Your task to perform on an android device: change the upload size in google photos Image 0: 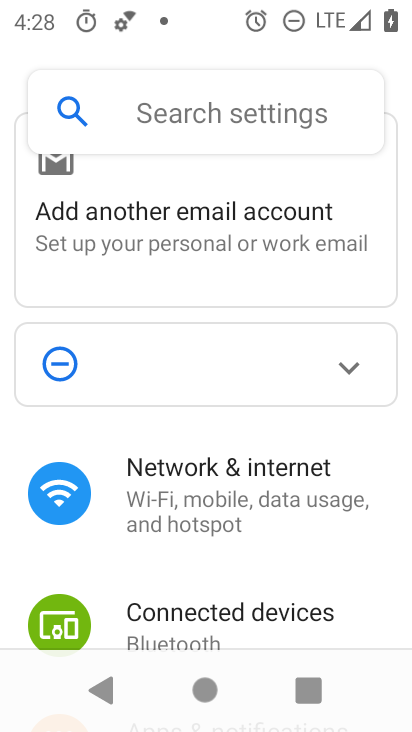
Step 0: press home button
Your task to perform on an android device: change the upload size in google photos Image 1: 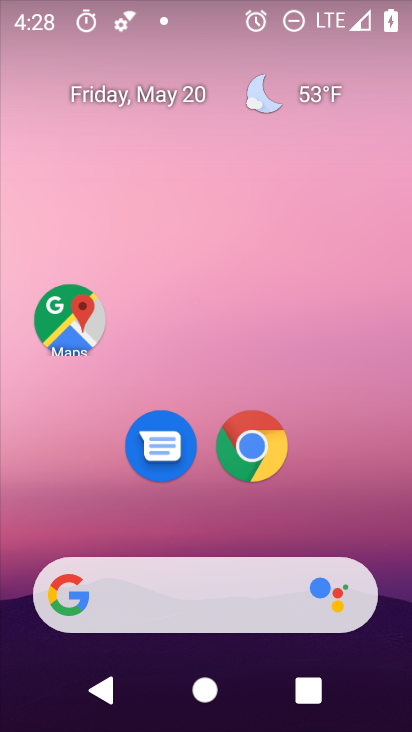
Step 1: drag from (360, 471) to (149, 9)
Your task to perform on an android device: change the upload size in google photos Image 2: 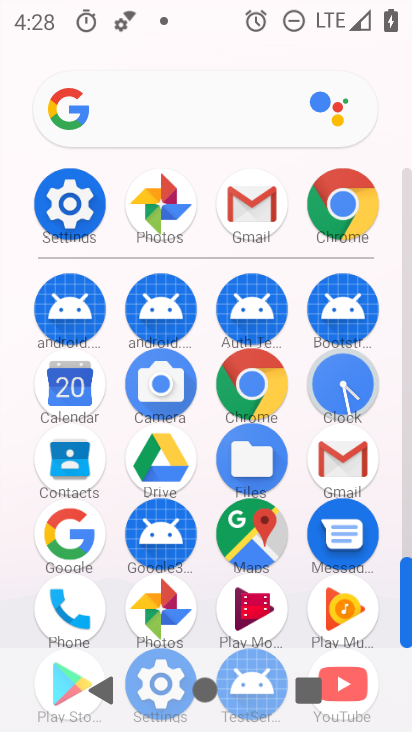
Step 2: click (166, 218)
Your task to perform on an android device: change the upload size in google photos Image 3: 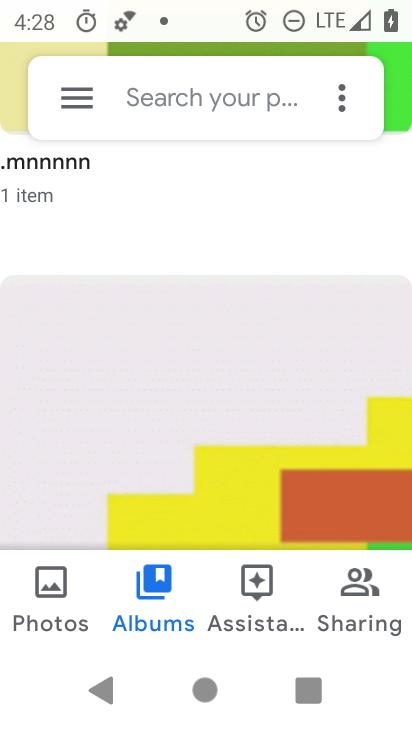
Step 3: drag from (182, 214) to (217, 587)
Your task to perform on an android device: change the upload size in google photos Image 4: 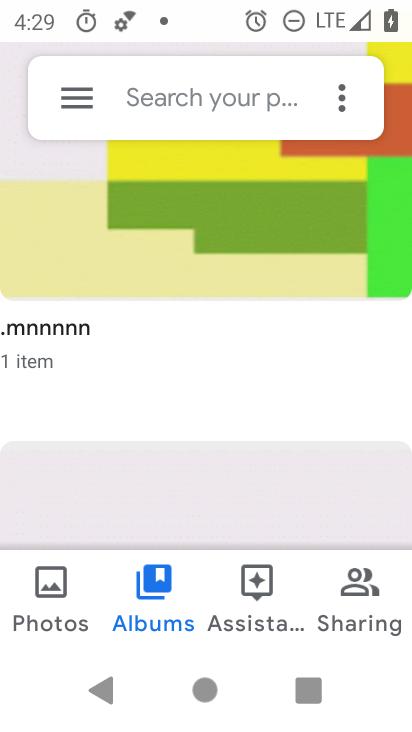
Step 4: click (69, 106)
Your task to perform on an android device: change the upload size in google photos Image 5: 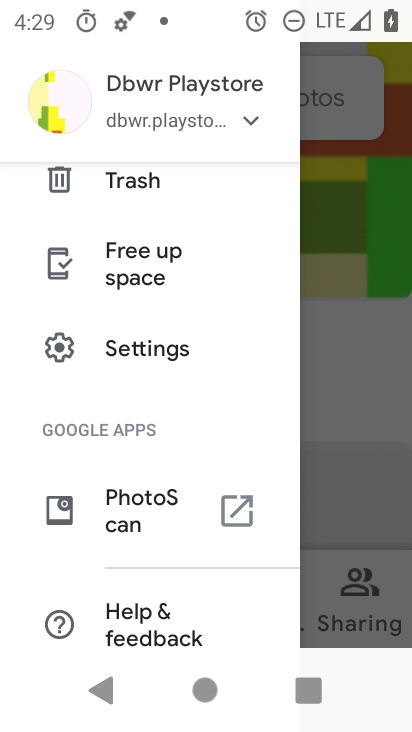
Step 5: drag from (137, 588) to (133, 199)
Your task to perform on an android device: change the upload size in google photos Image 6: 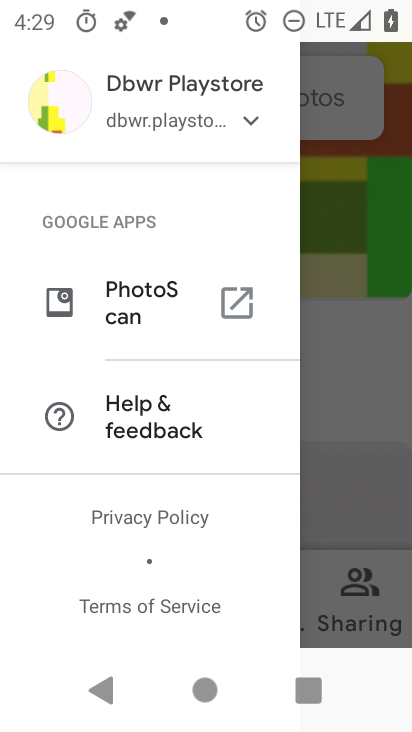
Step 6: drag from (133, 200) to (167, 517)
Your task to perform on an android device: change the upload size in google photos Image 7: 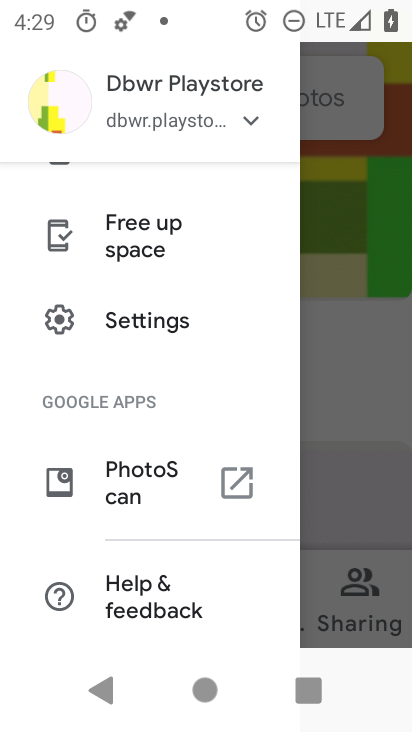
Step 7: drag from (131, 197) to (128, 505)
Your task to perform on an android device: change the upload size in google photos Image 8: 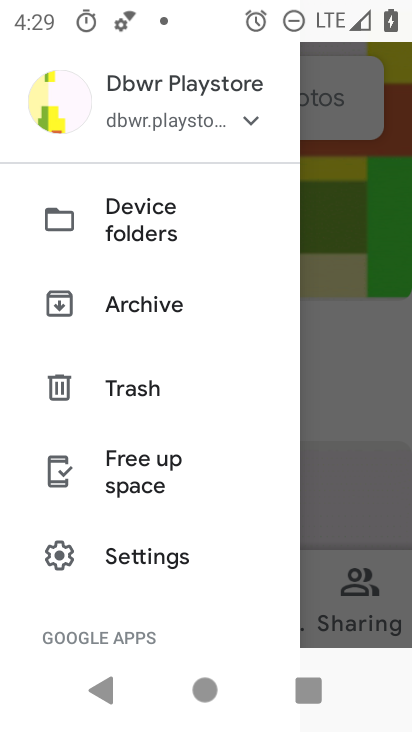
Step 8: drag from (170, 578) to (143, 217)
Your task to perform on an android device: change the upload size in google photos Image 9: 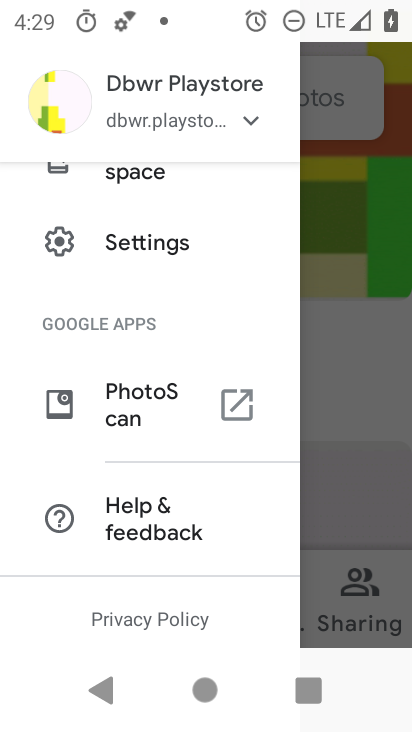
Step 9: drag from (155, 582) to (151, 237)
Your task to perform on an android device: change the upload size in google photos Image 10: 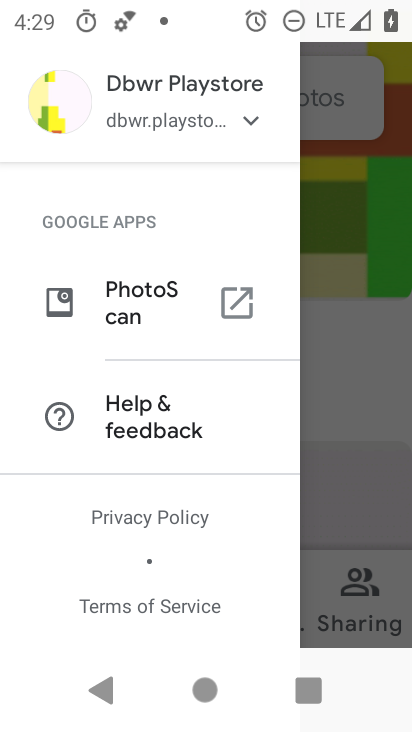
Step 10: drag from (157, 262) to (165, 650)
Your task to perform on an android device: change the upload size in google photos Image 11: 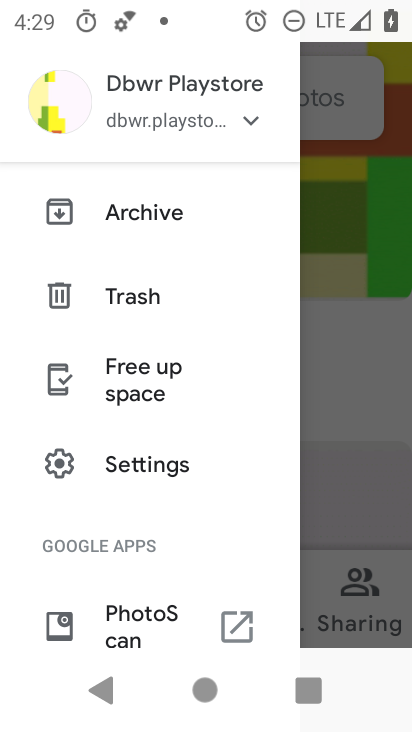
Step 11: drag from (125, 567) to (137, 207)
Your task to perform on an android device: change the upload size in google photos Image 12: 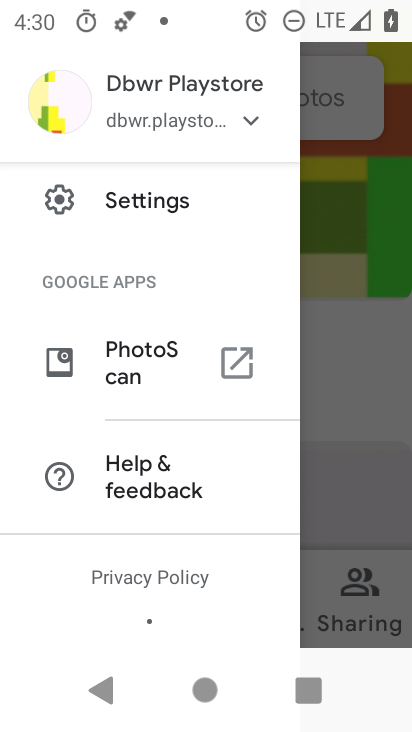
Step 12: drag from (95, 151) to (64, 694)
Your task to perform on an android device: change the upload size in google photos Image 13: 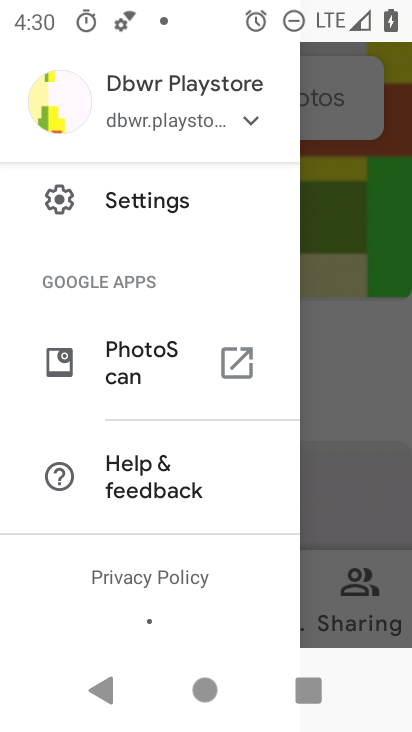
Step 13: drag from (114, 286) to (94, 632)
Your task to perform on an android device: change the upload size in google photos Image 14: 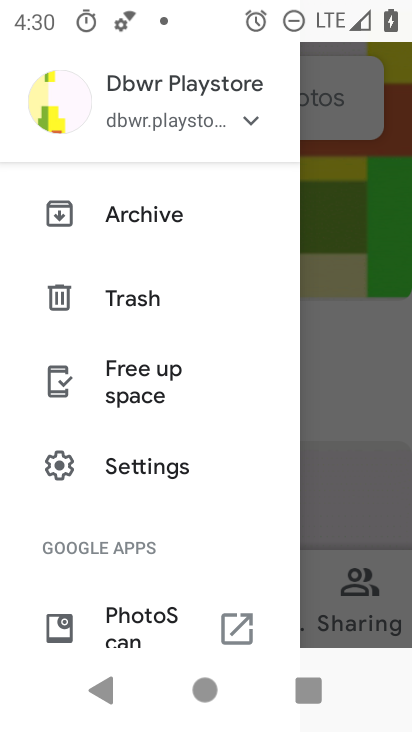
Step 14: drag from (116, 224) to (87, 713)
Your task to perform on an android device: change the upload size in google photos Image 15: 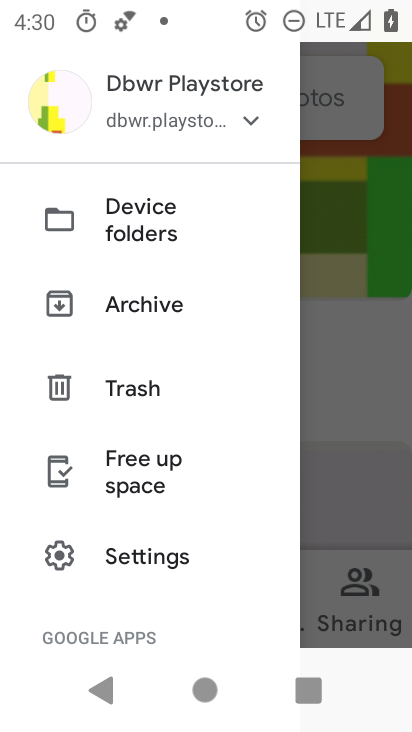
Step 15: drag from (118, 181) to (163, 608)
Your task to perform on an android device: change the upload size in google photos Image 16: 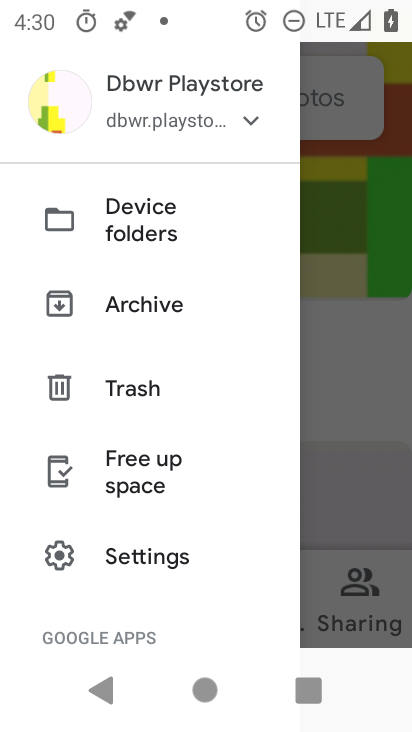
Step 16: drag from (66, 600) to (61, 126)
Your task to perform on an android device: change the upload size in google photos Image 17: 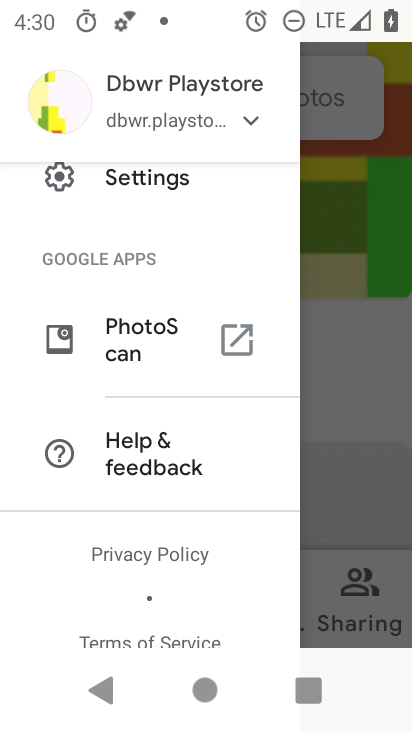
Step 17: drag from (135, 619) to (150, 256)
Your task to perform on an android device: change the upload size in google photos Image 18: 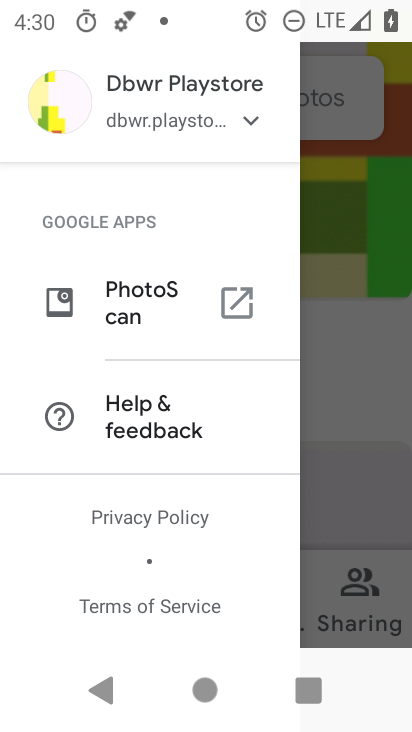
Step 18: drag from (147, 171) to (124, 614)
Your task to perform on an android device: change the upload size in google photos Image 19: 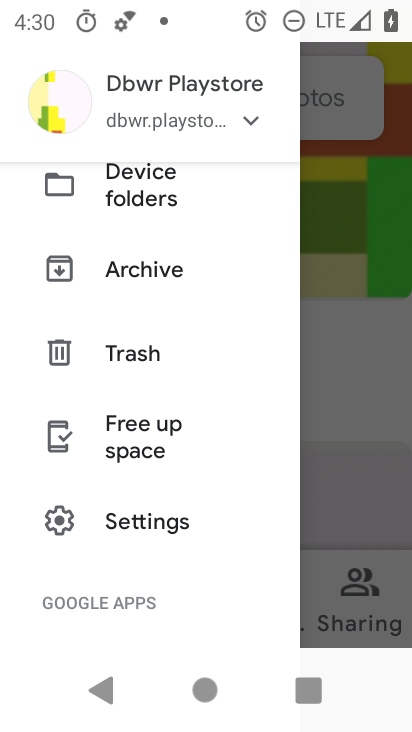
Step 19: click (118, 523)
Your task to perform on an android device: change the upload size in google photos Image 20: 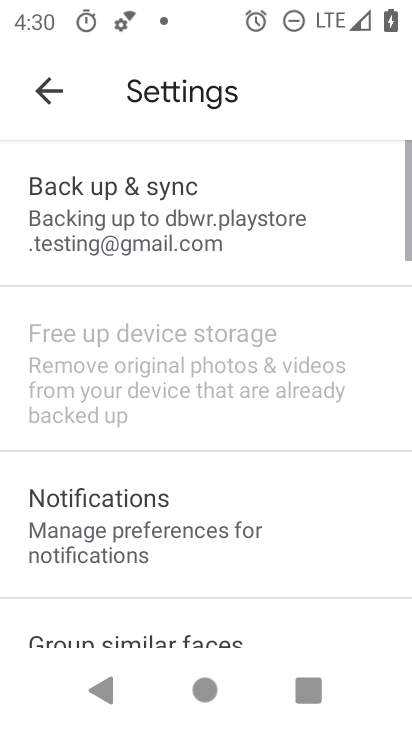
Step 20: click (156, 192)
Your task to perform on an android device: change the upload size in google photos Image 21: 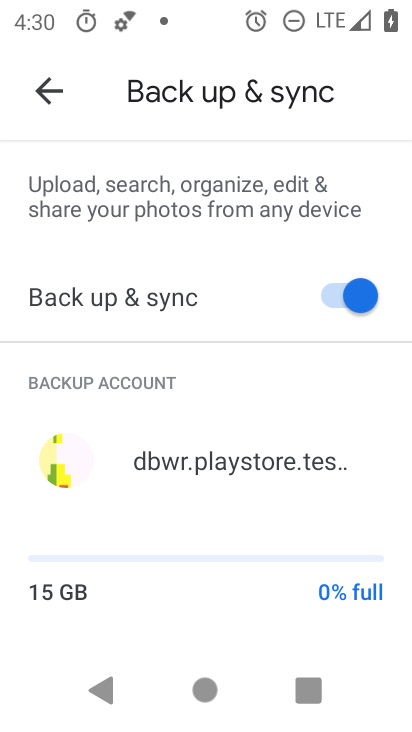
Step 21: drag from (208, 526) to (242, 156)
Your task to perform on an android device: change the upload size in google photos Image 22: 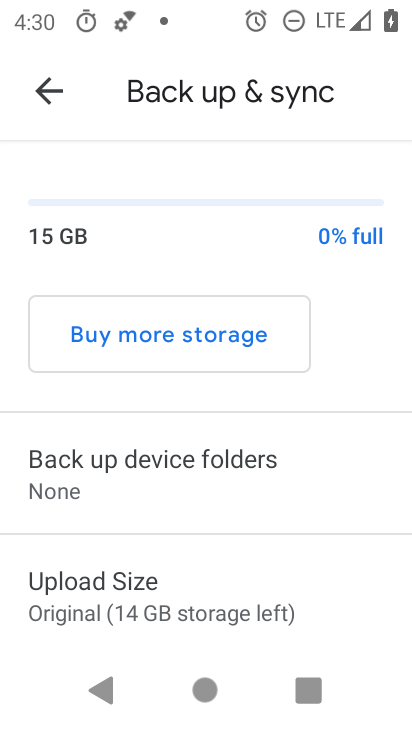
Step 22: click (159, 594)
Your task to perform on an android device: change the upload size in google photos Image 23: 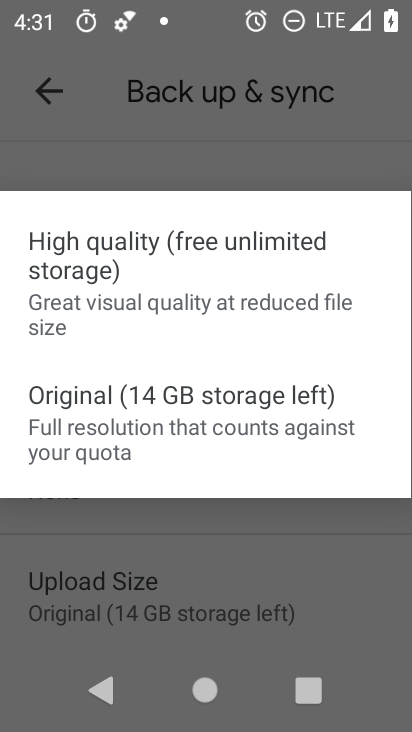
Step 23: click (167, 436)
Your task to perform on an android device: change the upload size in google photos Image 24: 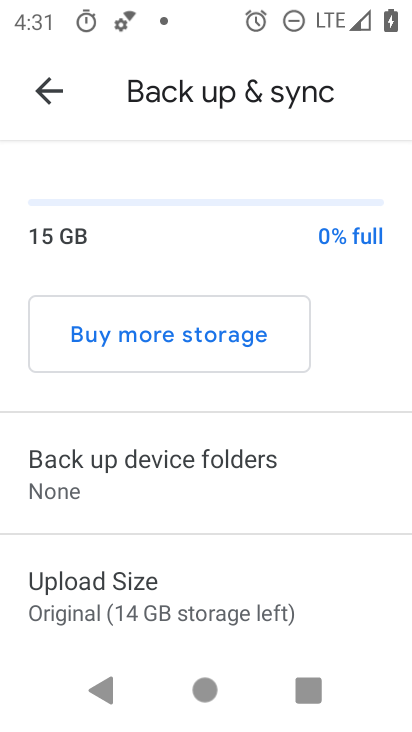
Step 24: task complete